Your task to perform on an android device: turn off sleep mode Image 0: 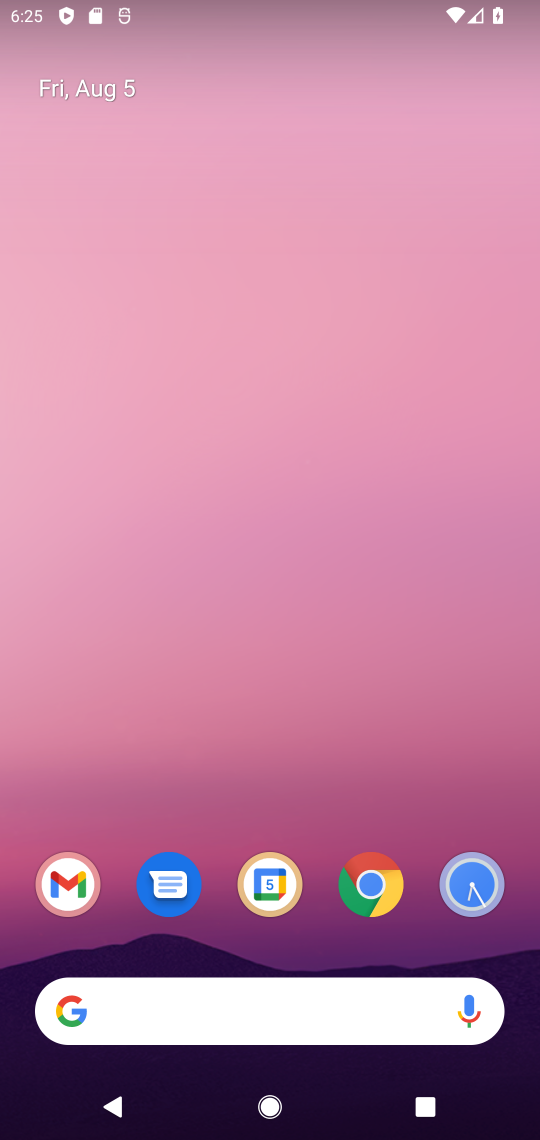
Step 0: drag from (318, 926) to (417, 18)
Your task to perform on an android device: turn off sleep mode Image 1: 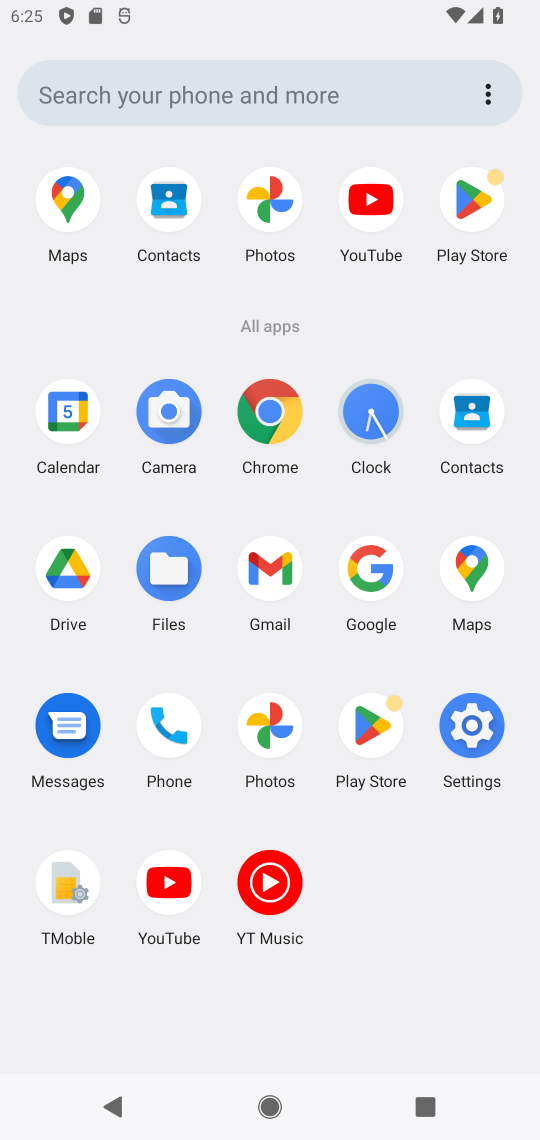
Step 1: click (476, 732)
Your task to perform on an android device: turn off sleep mode Image 2: 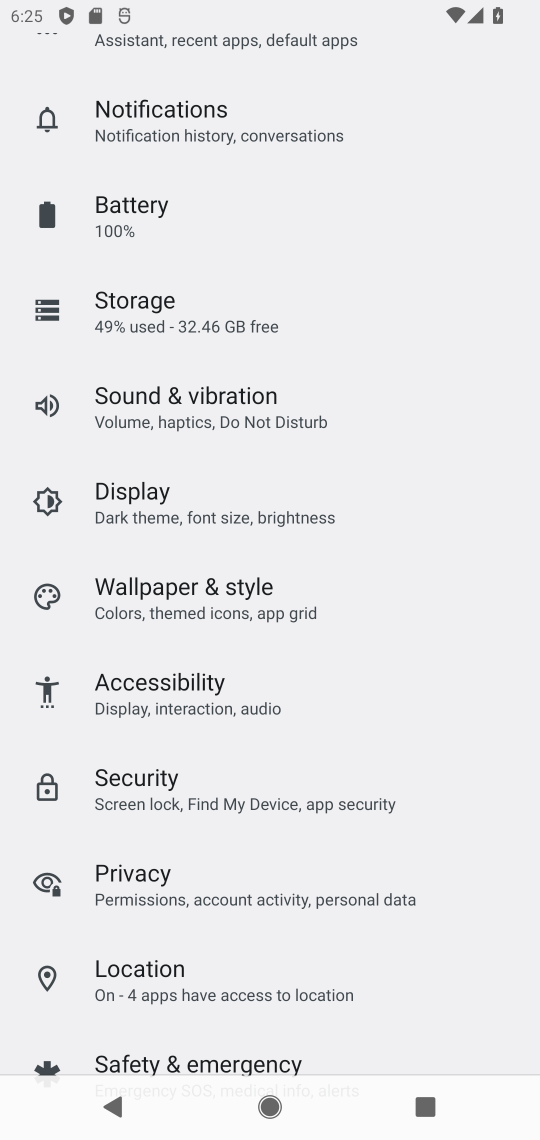
Step 2: click (196, 479)
Your task to perform on an android device: turn off sleep mode Image 3: 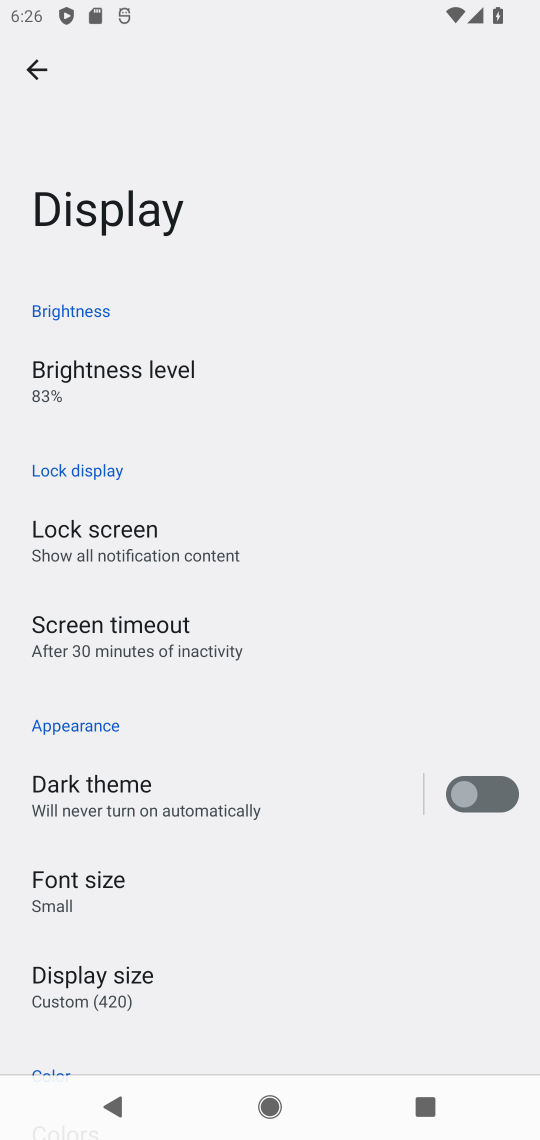
Step 3: task complete